Your task to perform on an android device: toggle priority inbox in the gmail app Image 0: 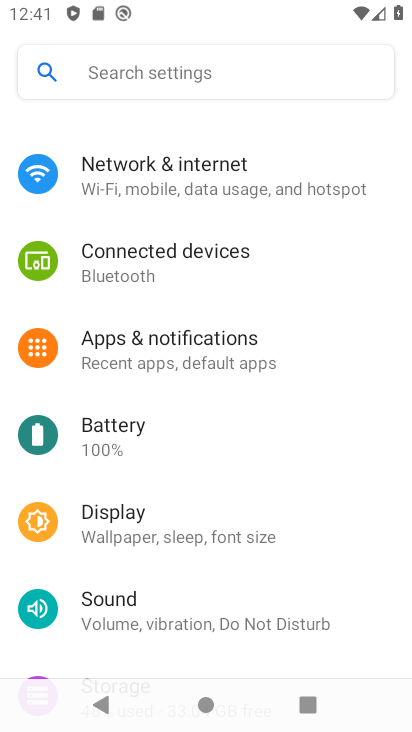
Step 0: press home button
Your task to perform on an android device: toggle priority inbox in the gmail app Image 1: 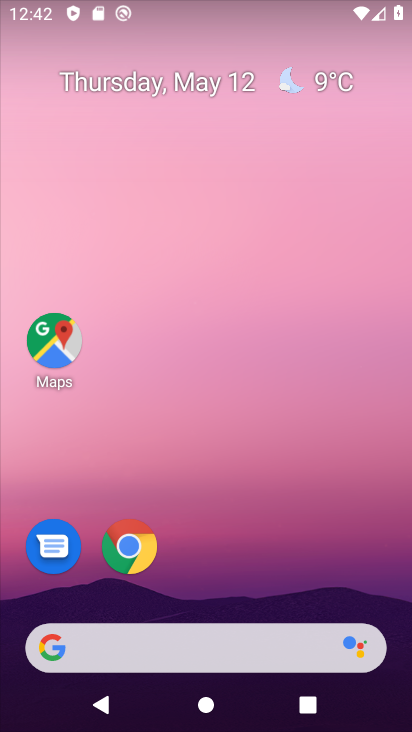
Step 1: drag from (227, 687) to (337, 233)
Your task to perform on an android device: toggle priority inbox in the gmail app Image 2: 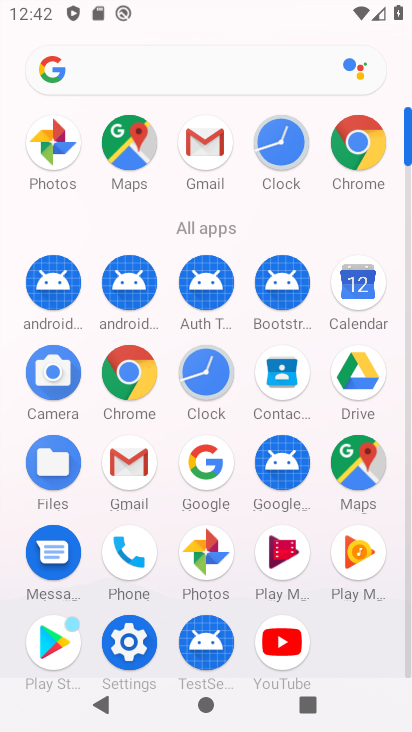
Step 2: click (122, 457)
Your task to perform on an android device: toggle priority inbox in the gmail app Image 3: 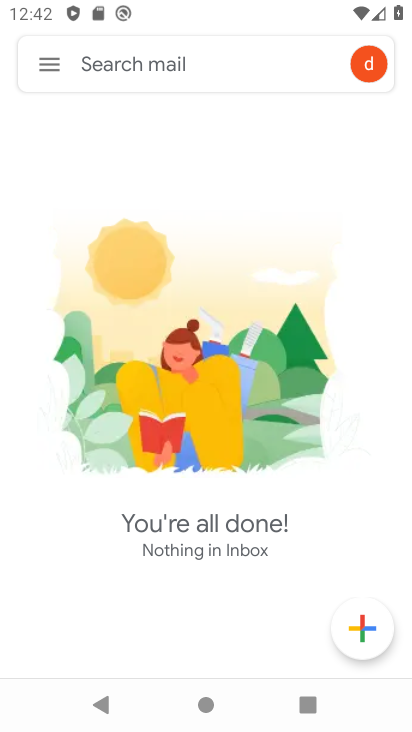
Step 3: click (58, 60)
Your task to perform on an android device: toggle priority inbox in the gmail app Image 4: 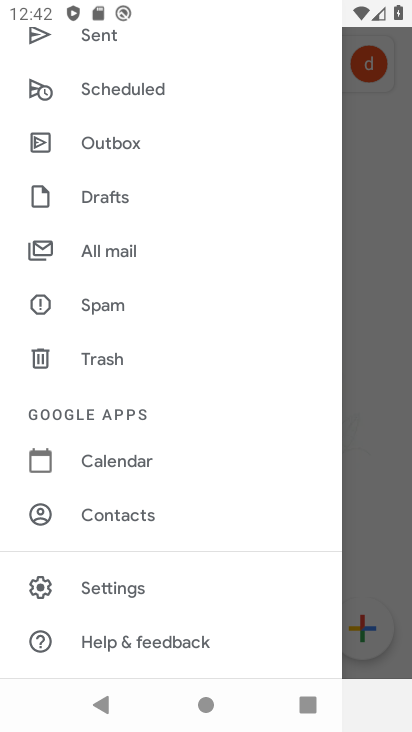
Step 4: click (105, 585)
Your task to perform on an android device: toggle priority inbox in the gmail app Image 5: 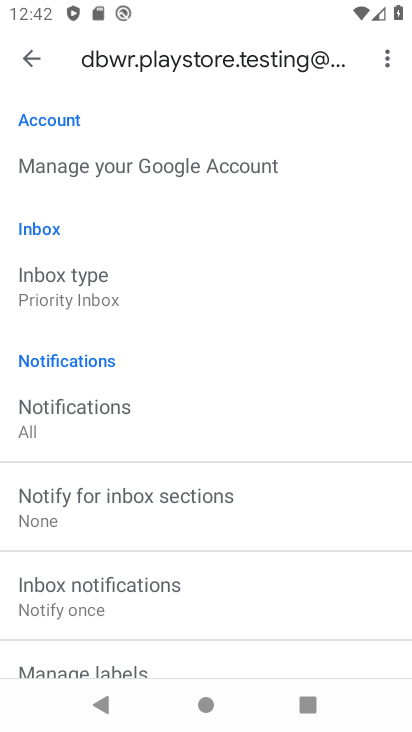
Step 5: click (102, 295)
Your task to perform on an android device: toggle priority inbox in the gmail app Image 6: 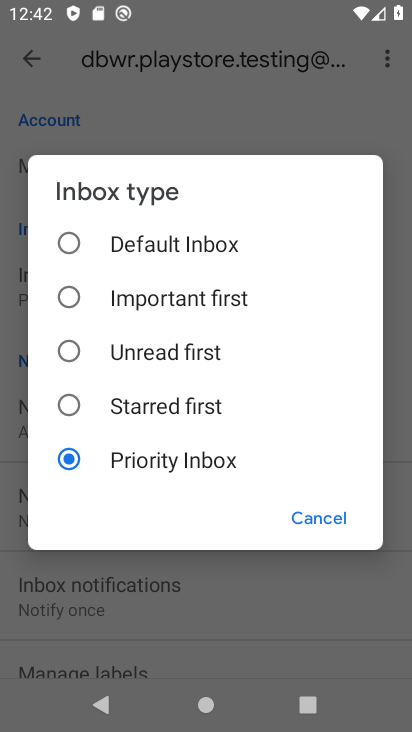
Step 6: task complete